Your task to perform on an android device: Turn off the flashlight Image 0: 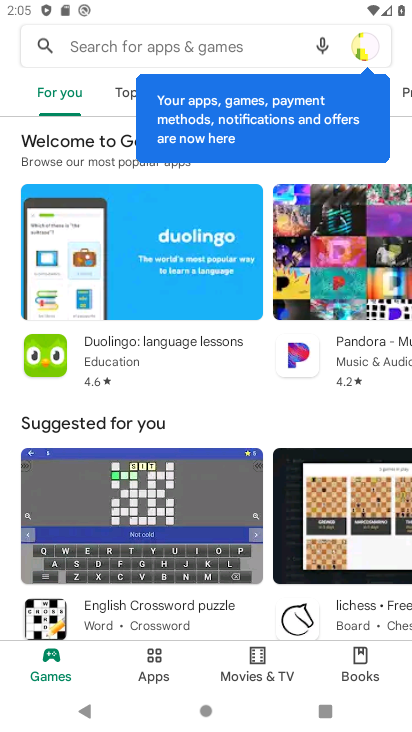
Step 0: press home button
Your task to perform on an android device: Turn off the flashlight Image 1: 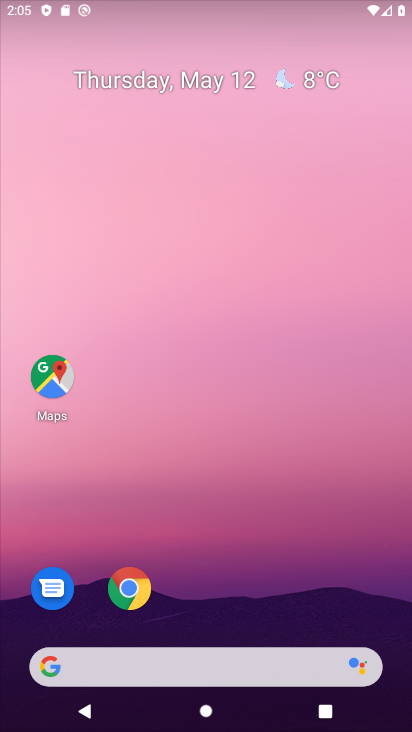
Step 1: drag from (224, 622) to (221, 109)
Your task to perform on an android device: Turn off the flashlight Image 2: 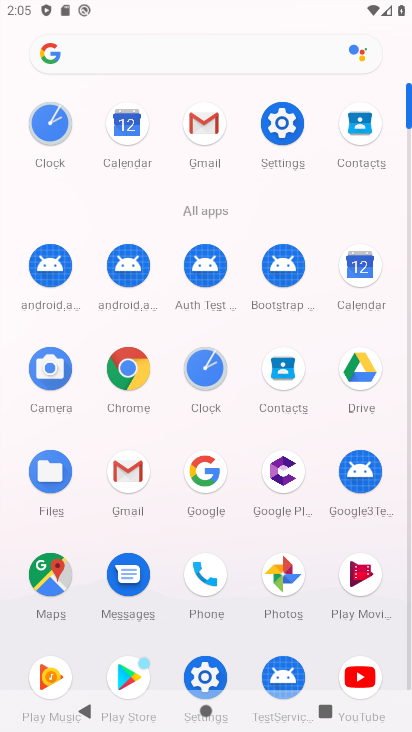
Step 2: click (271, 137)
Your task to perform on an android device: Turn off the flashlight Image 3: 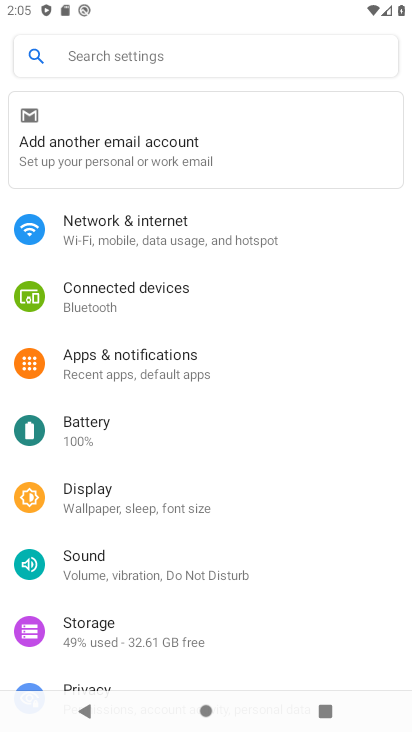
Step 3: click (172, 379)
Your task to perform on an android device: Turn off the flashlight Image 4: 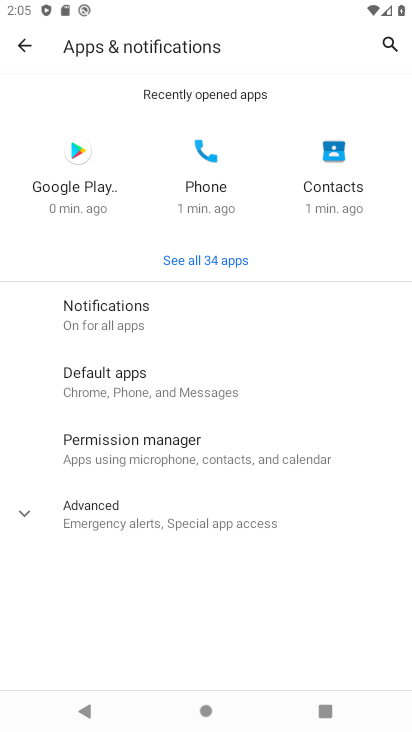
Step 4: task complete